Your task to perform on an android device: toggle translation in the chrome app Image 0: 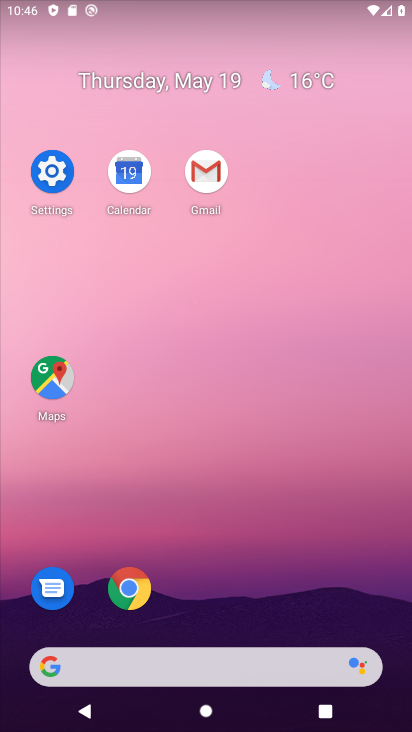
Step 0: click (122, 583)
Your task to perform on an android device: toggle translation in the chrome app Image 1: 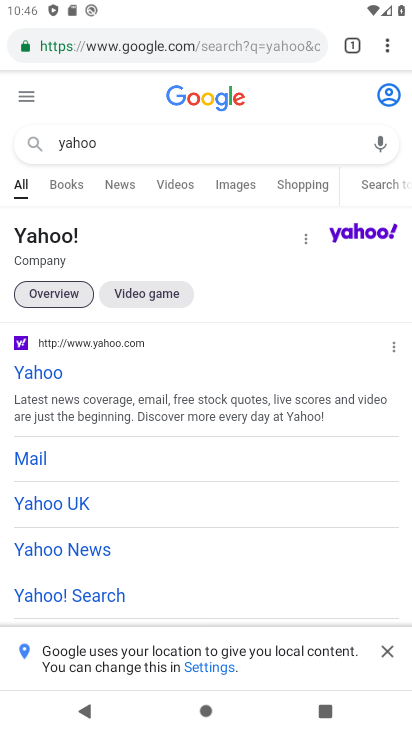
Step 1: click (382, 50)
Your task to perform on an android device: toggle translation in the chrome app Image 2: 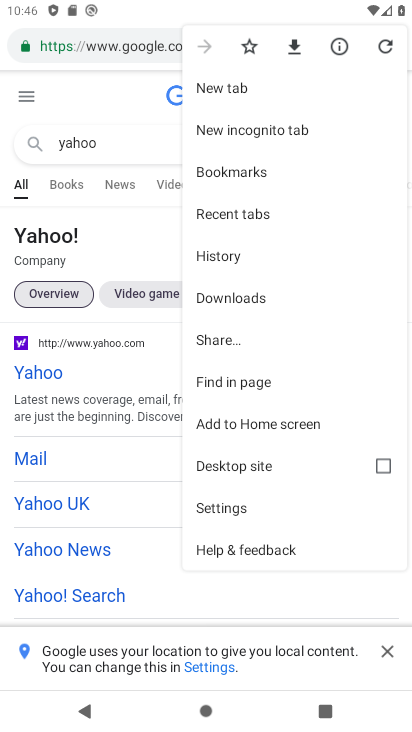
Step 2: click (239, 499)
Your task to perform on an android device: toggle translation in the chrome app Image 3: 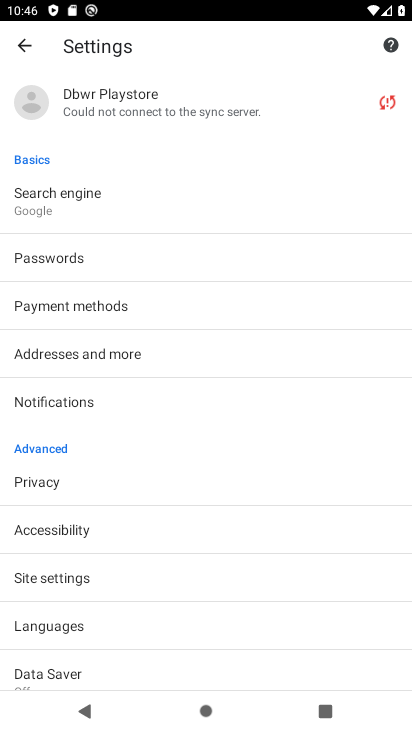
Step 3: click (157, 637)
Your task to perform on an android device: toggle translation in the chrome app Image 4: 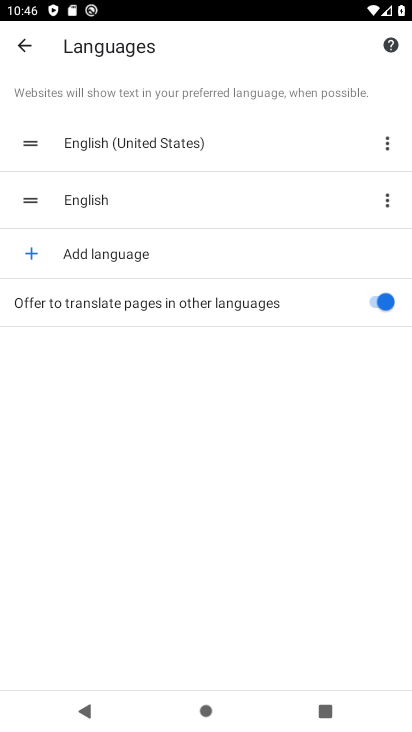
Step 4: task complete